Your task to perform on an android device: check out phone information Image 0: 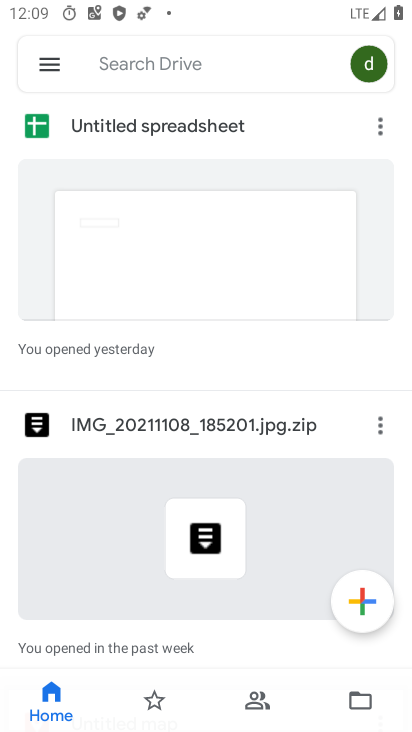
Step 0: press home button
Your task to perform on an android device: check out phone information Image 1: 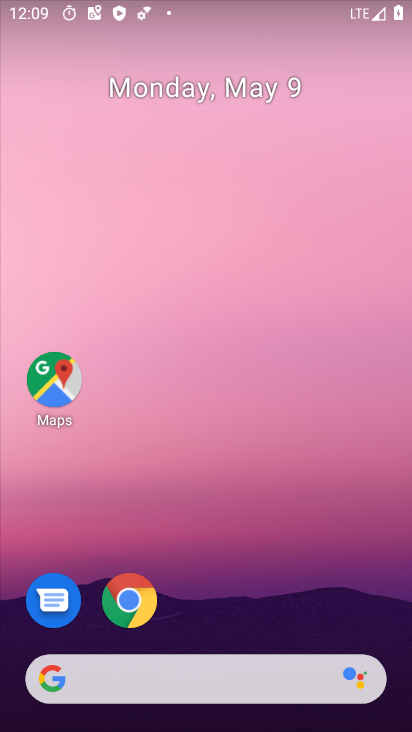
Step 1: drag from (234, 618) to (247, 275)
Your task to perform on an android device: check out phone information Image 2: 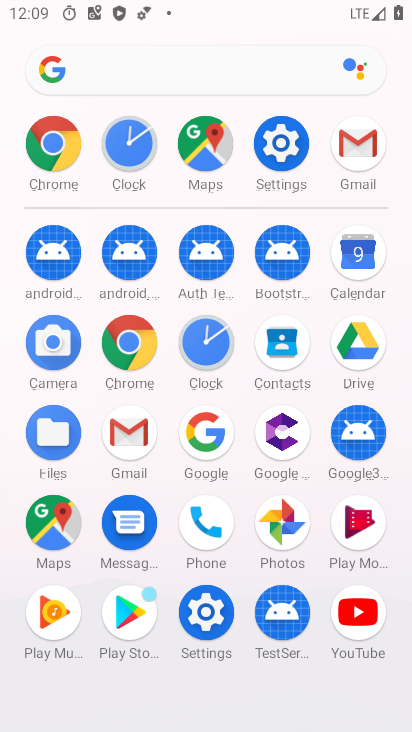
Step 2: click (282, 159)
Your task to perform on an android device: check out phone information Image 3: 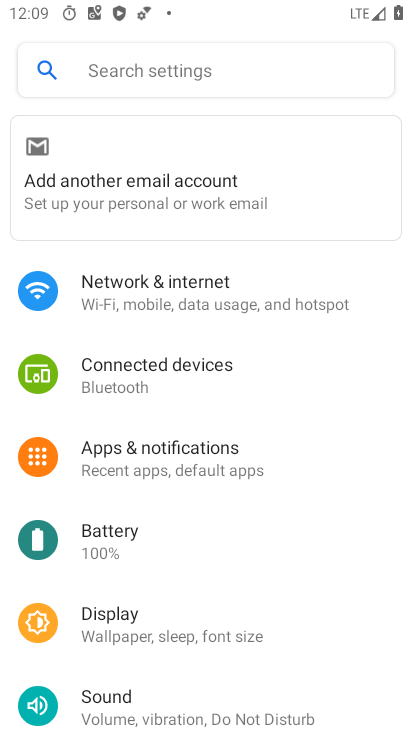
Step 3: drag from (209, 626) to (180, 196)
Your task to perform on an android device: check out phone information Image 4: 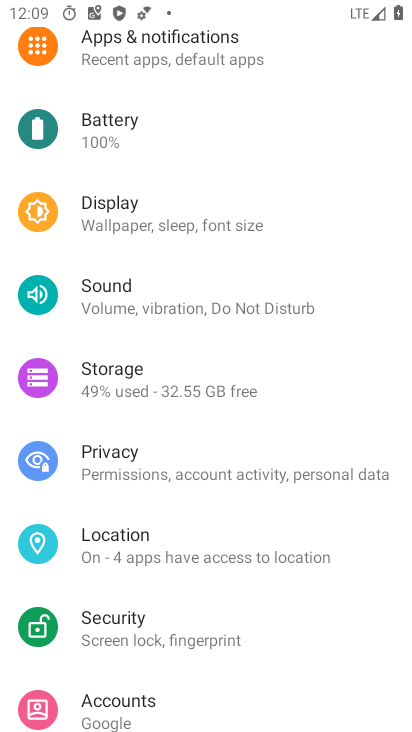
Step 4: drag from (218, 562) to (223, 174)
Your task to perform on an android device: check out phone information Image 5: 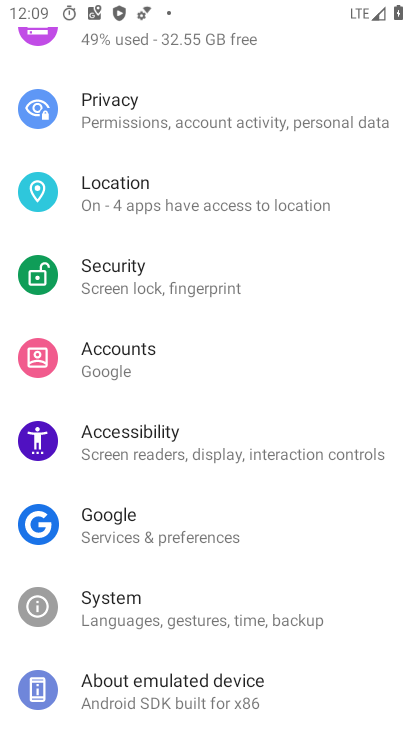
Step 5: drag from (214, 568) to (258, 227)
Your task to perform on an android device: check out phone information Image 6: 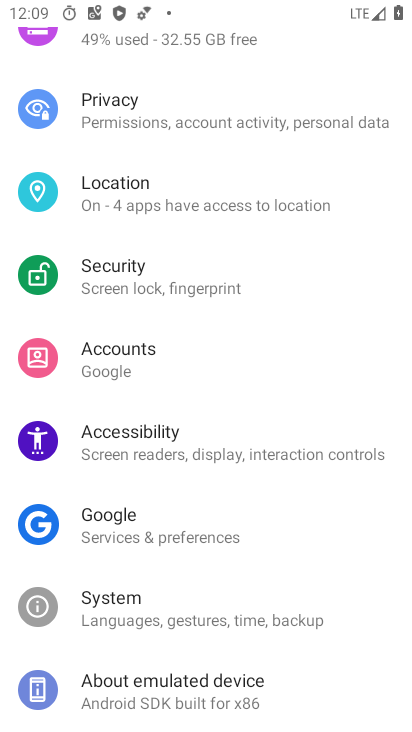
Step 6: click (183, 669)
Your task to perform on an android device: check out phone information Image 7: 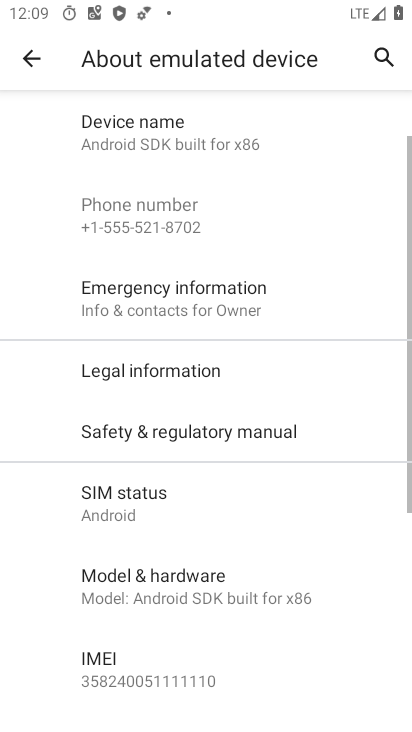
Step 7: drag from (261, 292) to (321, 176)
Your task to perform on an android device: check out phone information Image 8: 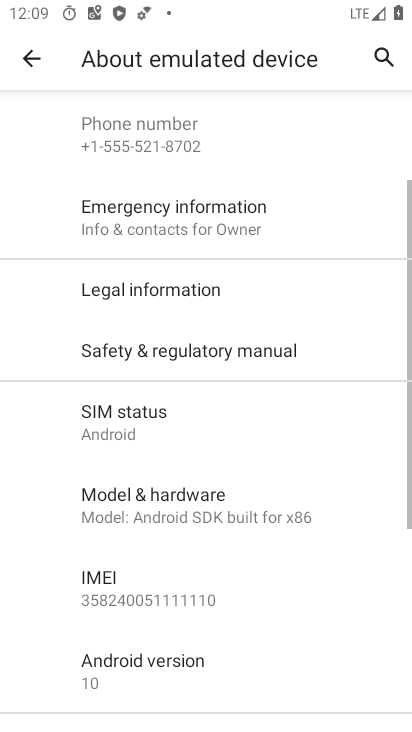
Step 8: click (272, 219)
Your task to perform on an android device: check out phone information Image 9: 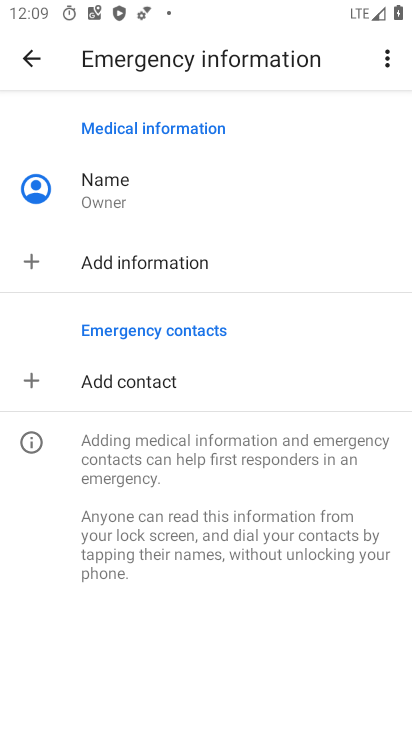
Step 9: task complete